Your task to perform on an android device: change keyboard looks Image 0: 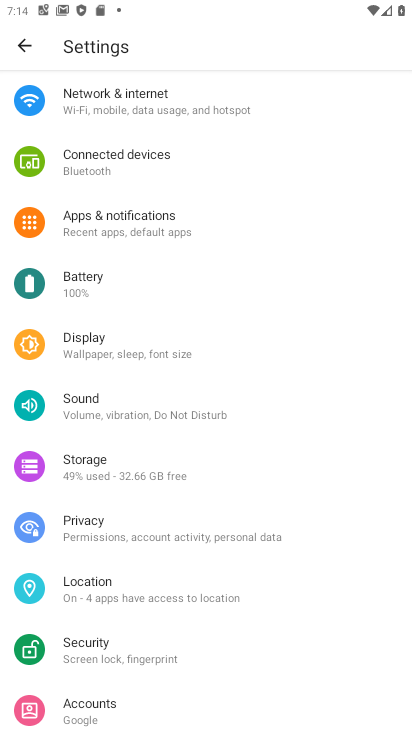
Step 0: drag from (138, 575) to (133, 109)
Your task to perform on an android device: change keyboard looks Image 1: 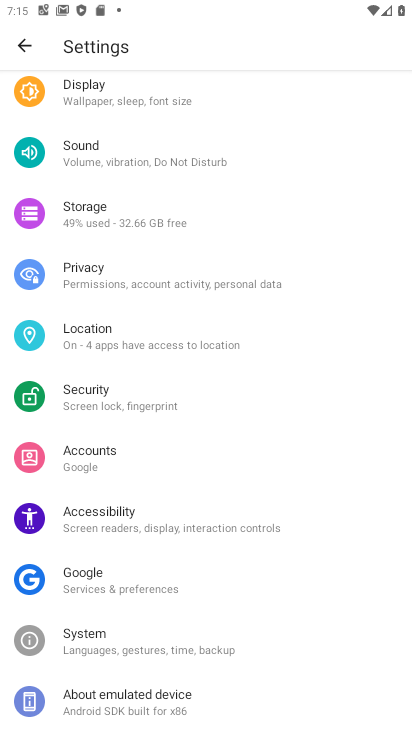
Step 1: click (221, 651)
Your task to perform on an android device: change keyboard looks Image 2: 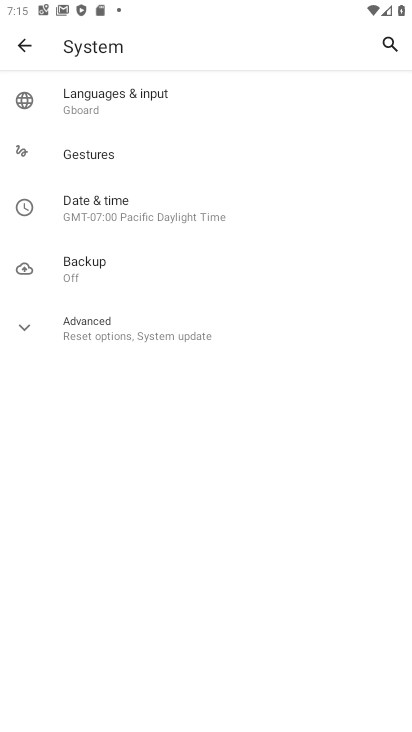
Step 2: click (101, 115)
Your task to perform on an android device: change keyboard looks Image 3: 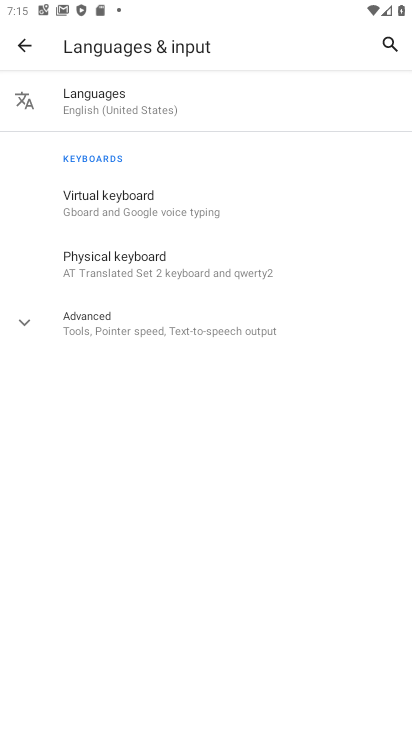
Step 3: click (107, 197)
Your task to perform on an android device: change keyboard looks Image 4: 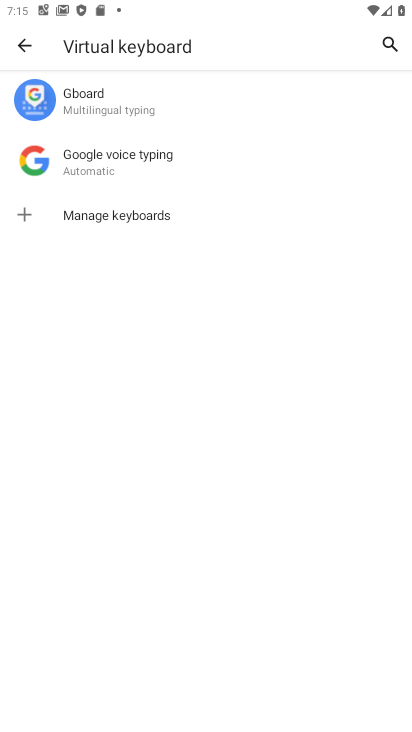
Step 4: click (153, 105)
Your task to perform on an android device: change keyboard looks Image 5: 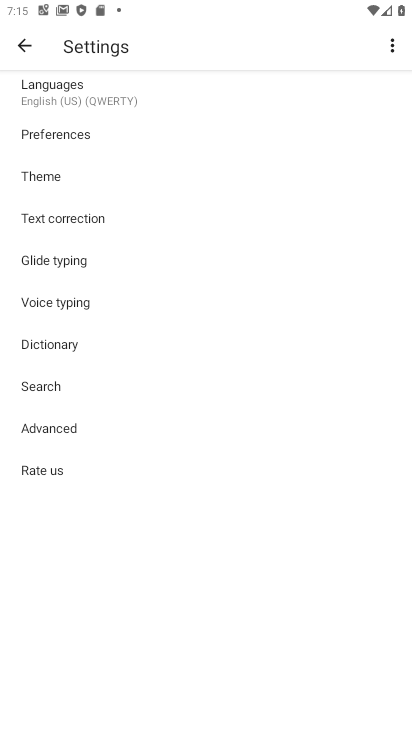
Step 5: click (54, 191)
Your task to perform on an android device: change keyboard looks Image 6: 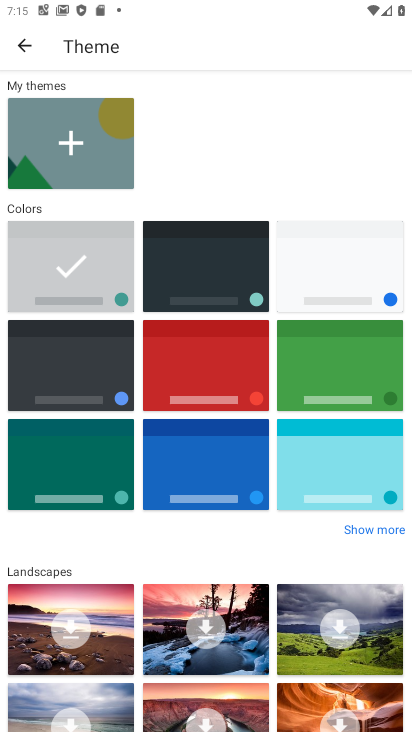
Step 6: click (195, 234)
Your task to perform on an android device: change keyboard looks Image 7: 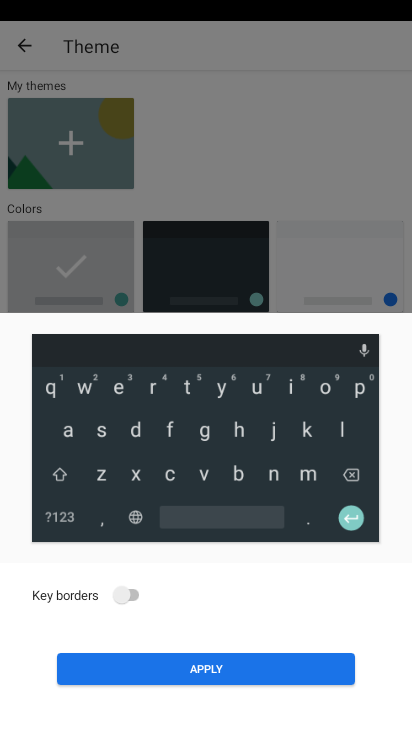
Step 7: click (214, 665)
Your task to perform on an android device: change keyboard looks Image 8: 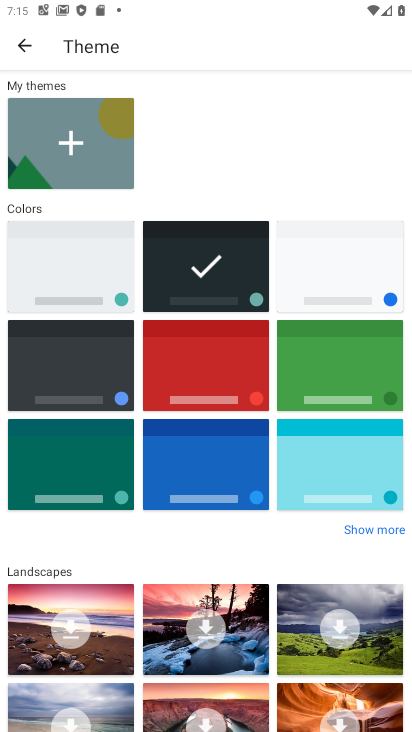
Step 8: task complete